Your task to perform on an android device: Open ESPN.com Image 0: 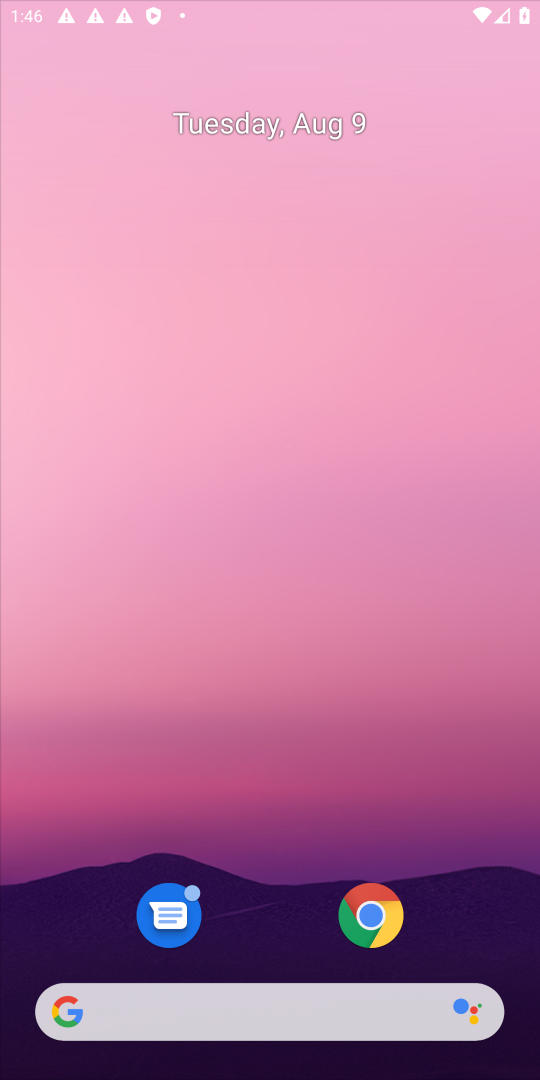
Step 0: click (35, 77)
Your task to perform on an android device: Open ESPN.com Image 1: 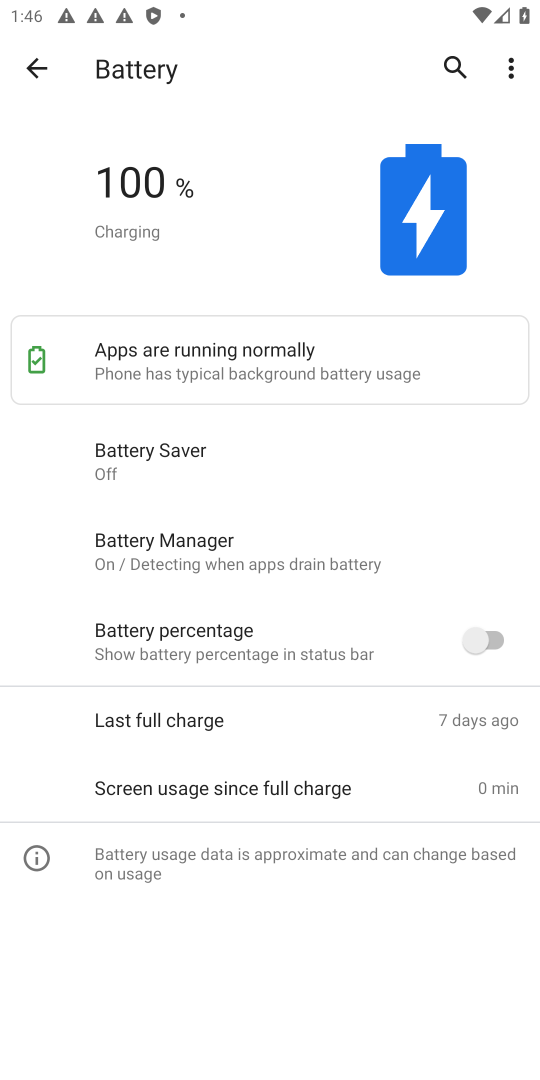
Step 1: press back button
Your task to perform on an android device: Open ESPN.com Image 2: 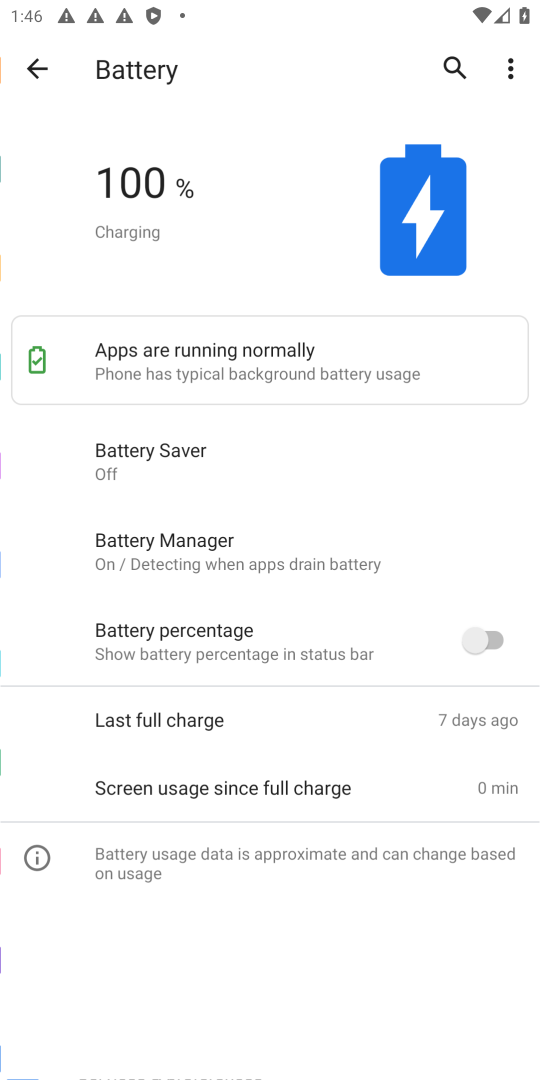
Step 2: click (40, 73)
Your task to perform on an android device: Open ESPN.com Image 3: 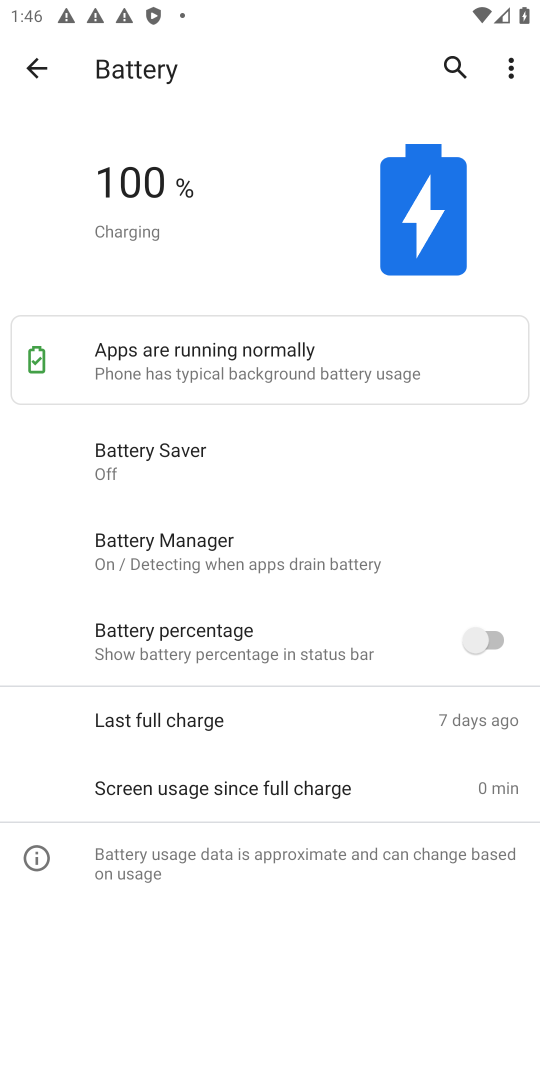
Step 3: click (24, 89)
Your task to perform on an android device: Open ESPN.com Image 4: 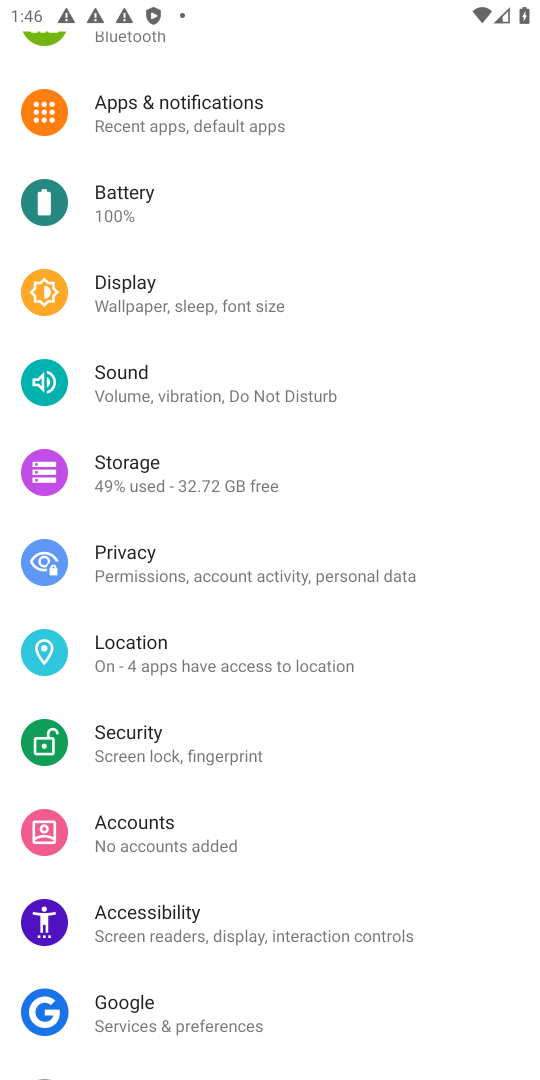
Step 4: press back button
Your task to perform on an android device: Open ESPN.com Image 5: 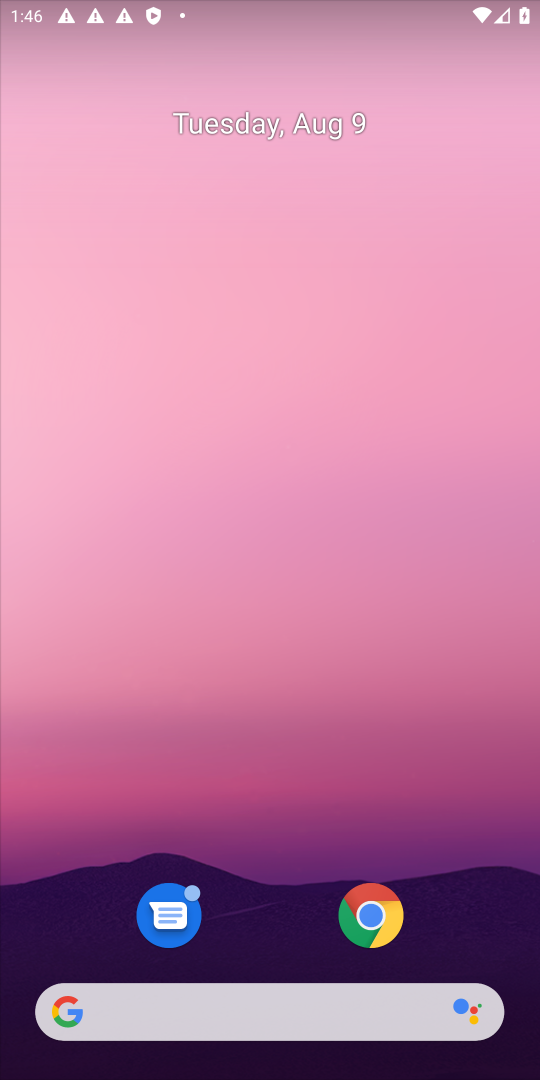
Step 5: drag from (285, 784) to (229, 352)
Your task to perform on an android device: Open ESPN.com Image 6: 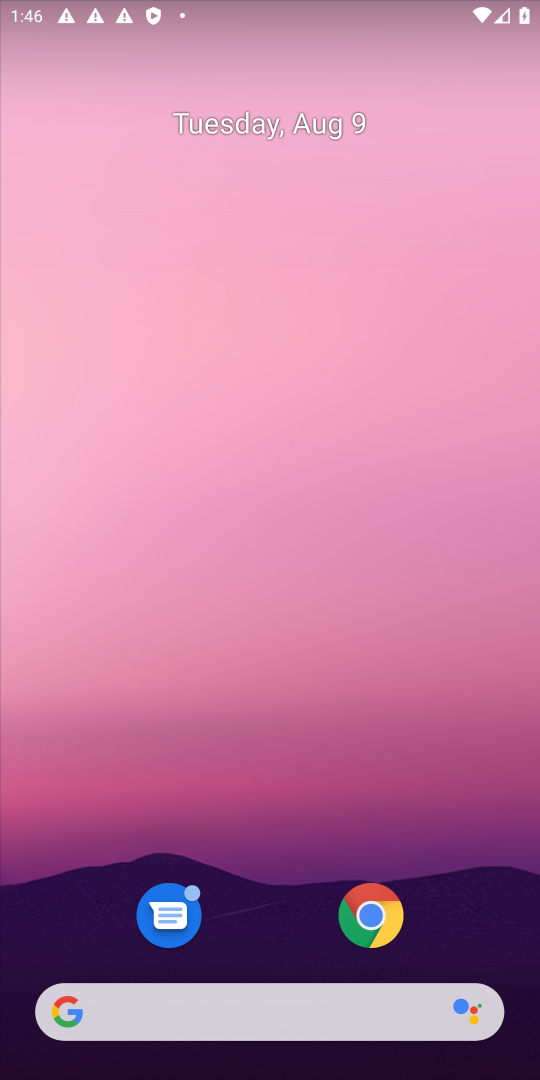
Step 6: click (275, 567)
Your task to perform on an android device: Open ESPN.com Image 7: 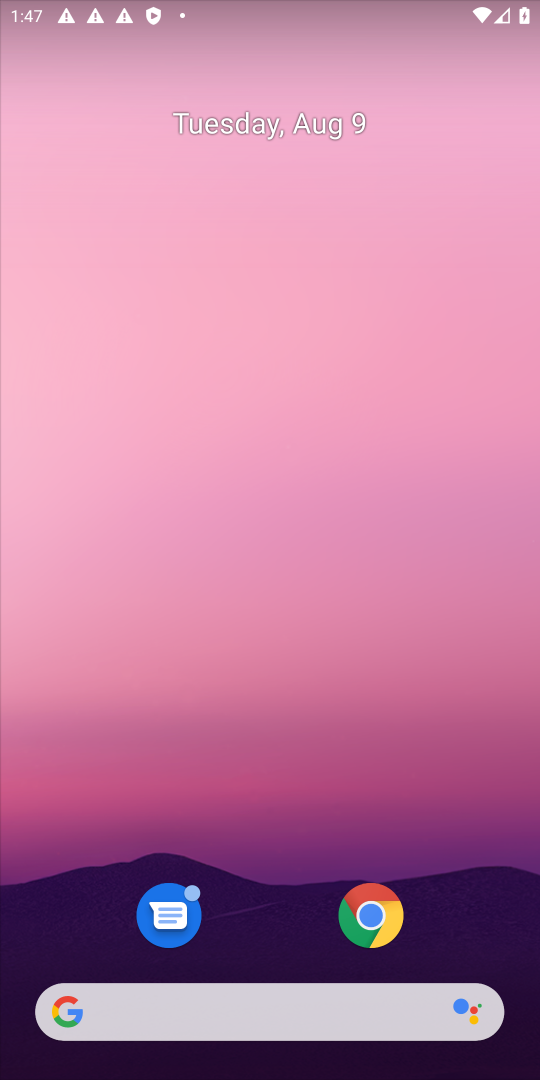
Step 7: drag from (267, 746) to (170, 297)
Your task to perform on an android device: Open ESPN.com Image 8: 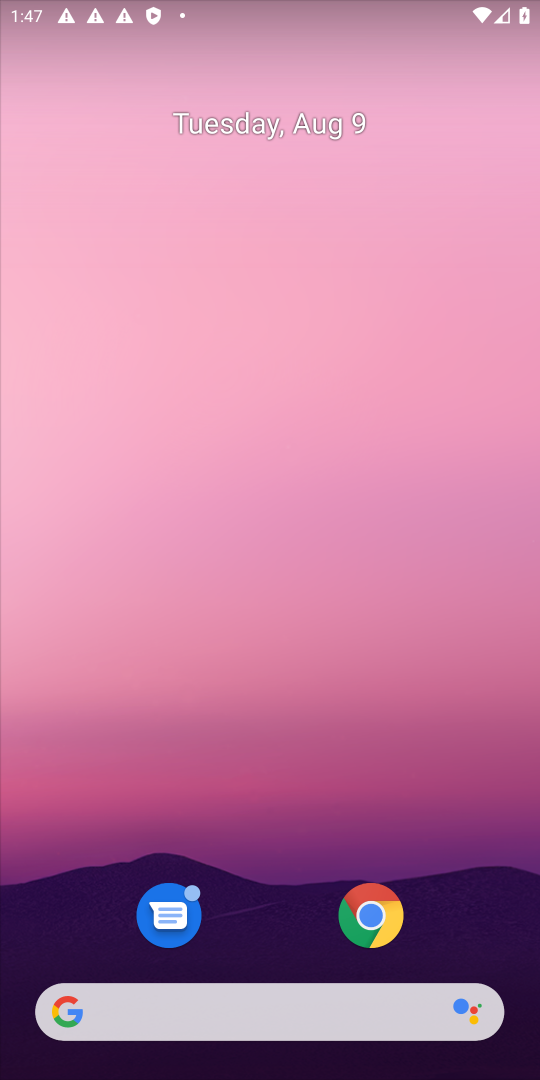
Step 8: drag from (275, 791) to (229, 536)
Your task to perform on an android device: Open ESPN.com Image 9: 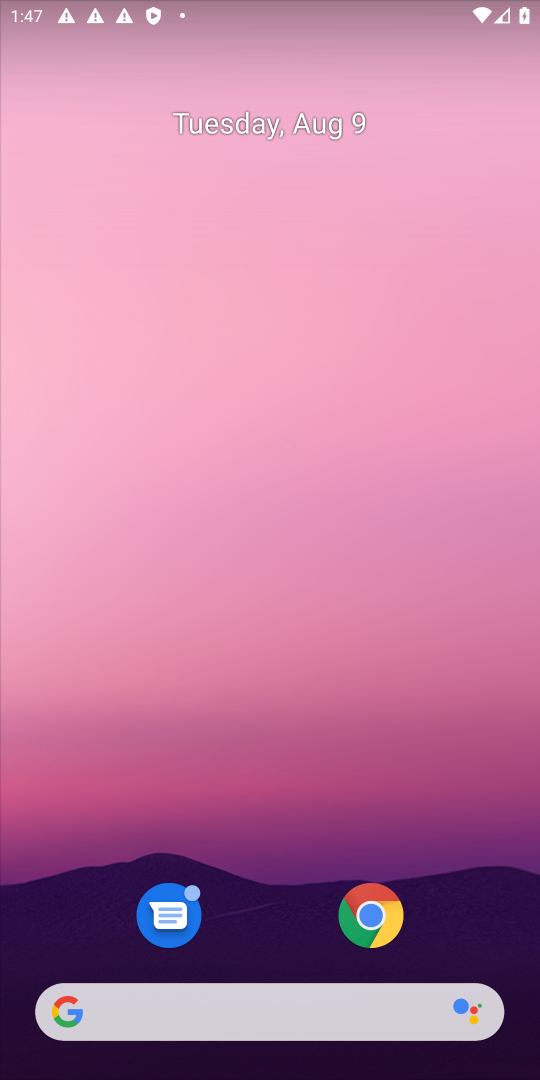
Step 9: drag from (284, 888) to (259, 529)
Your task to perform on an android device: Open ESPN.com Image 10: 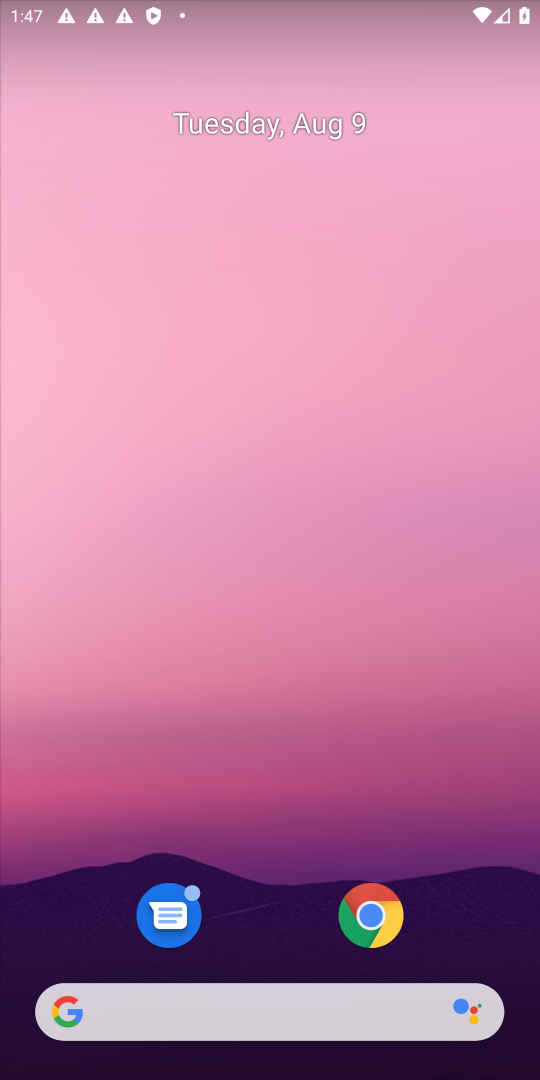
Step 10: drag from (294, 608) to (335, 661)
Your task to perform on an android device: Open ESPN.com Image 11: 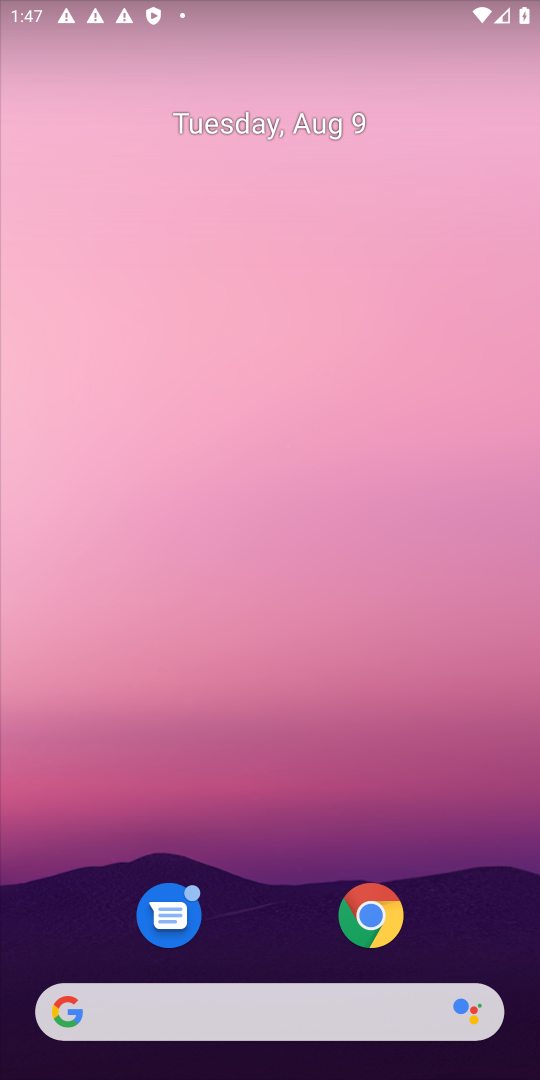
Step 11: drag from (302, 963) to (237, 552)
Your task to perform on an android device: Open ESPN.com Image 12: 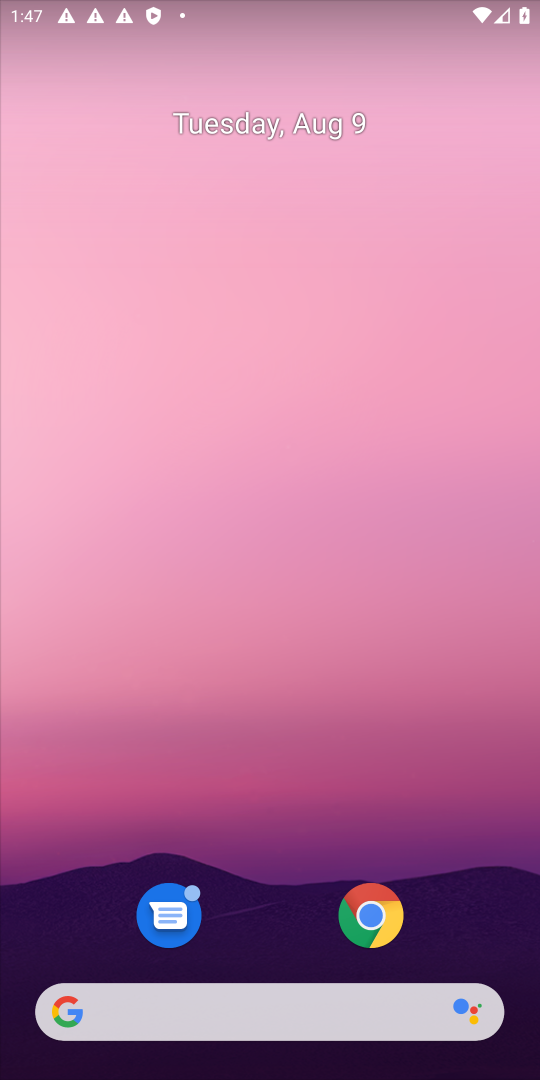
Step 12: drag from (282, 876) to (252, 670)
Your task to perform on an android device: Open ESPN.com Image 13: 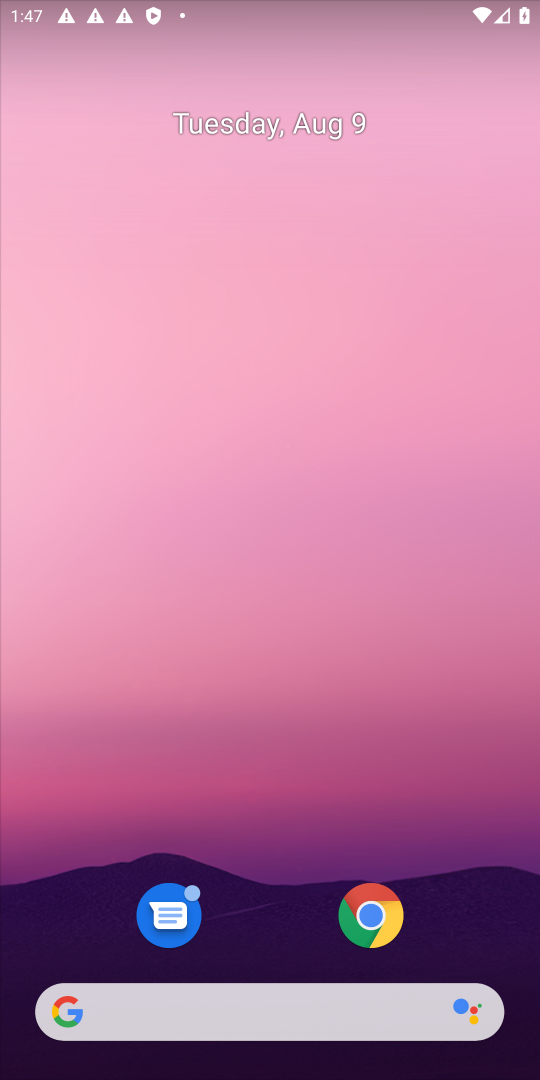
Step 13: drag from (324, 927) to (226, 409)
Your task to perform on an android device: Open ESPN.com Image 14: 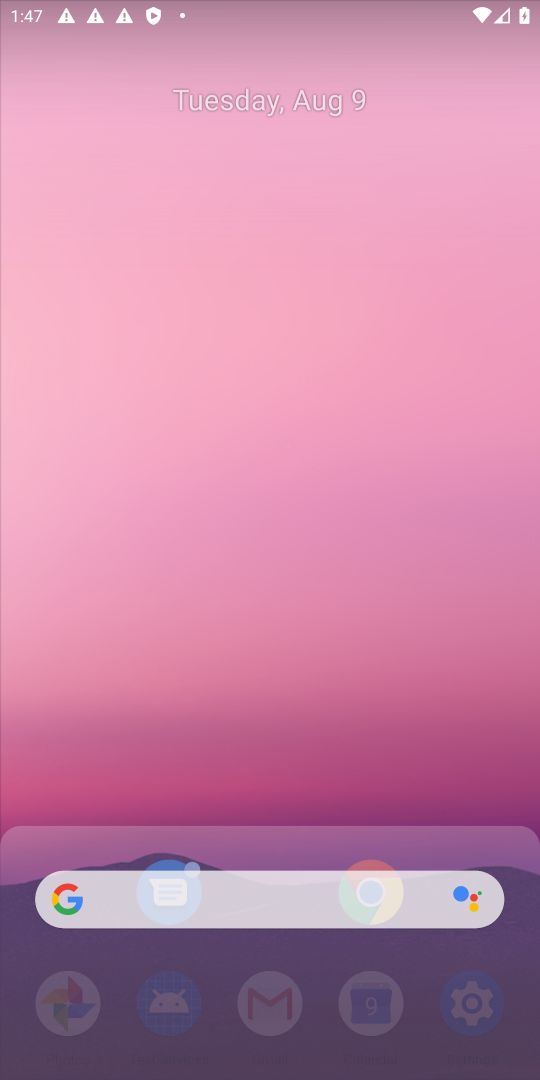
Step 14: drag from (277, 792) to (208, 354)
Your task to perform on an android device: Open ESPN.com Image 15: 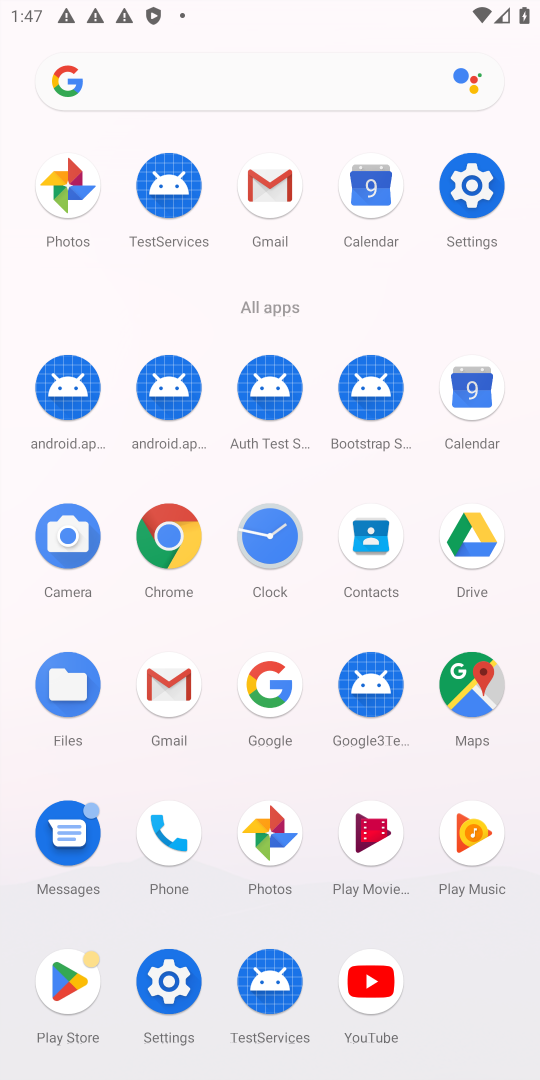
Step 15: click (164, 530)
Your task to perform on an android device: Open ESPN.com Image 16: 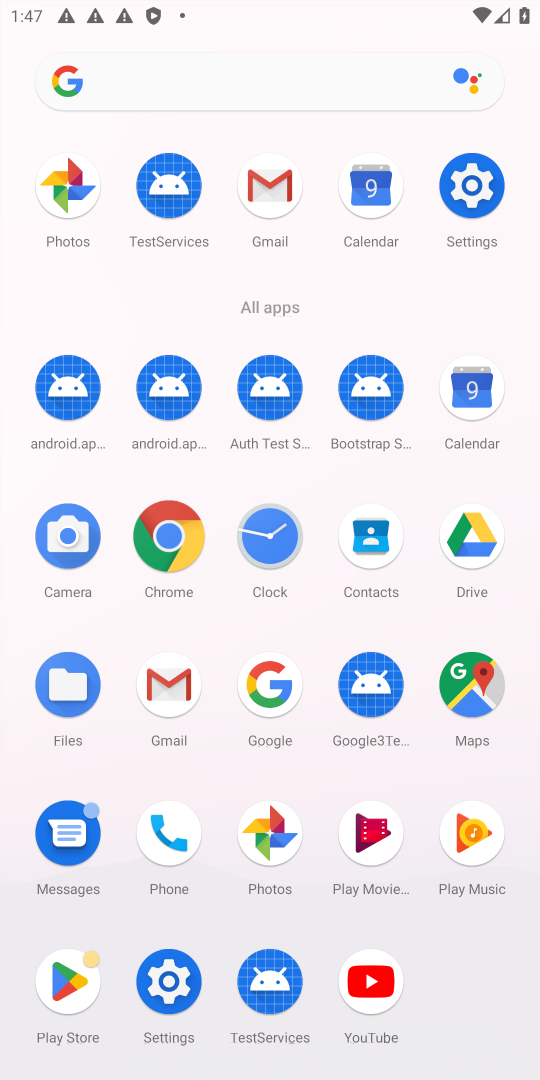
Step 16: click (167, 529)
Your task to perform on an android device: Open ESPN.com Image 17: 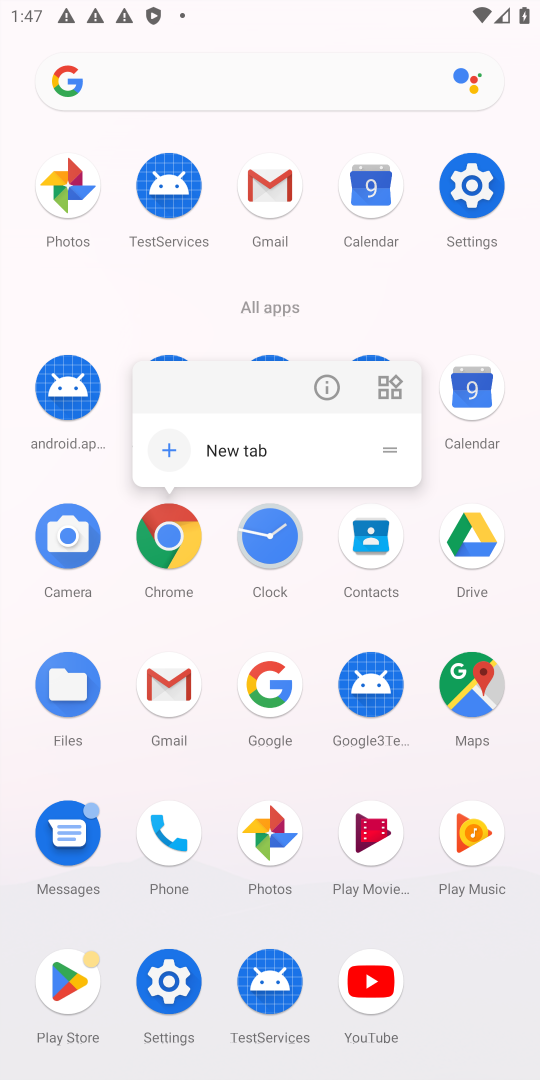
Step 17: click (146, 548)
Your task to perform on an android device: Open ESPN.com Image 18: 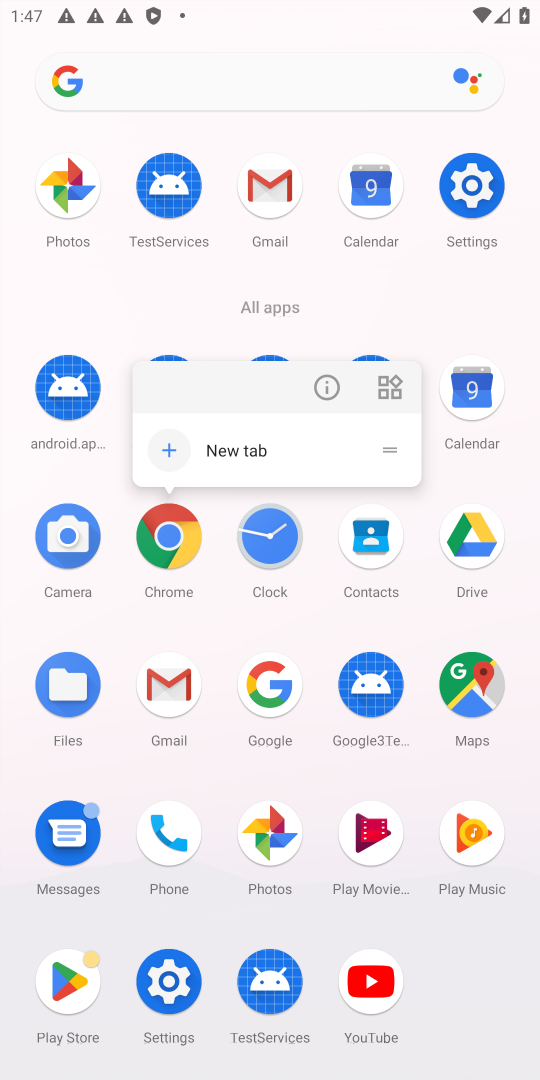
Step 18: click (146, 548)
Your task to perform on an android device: Open ESPN.com Image 19: 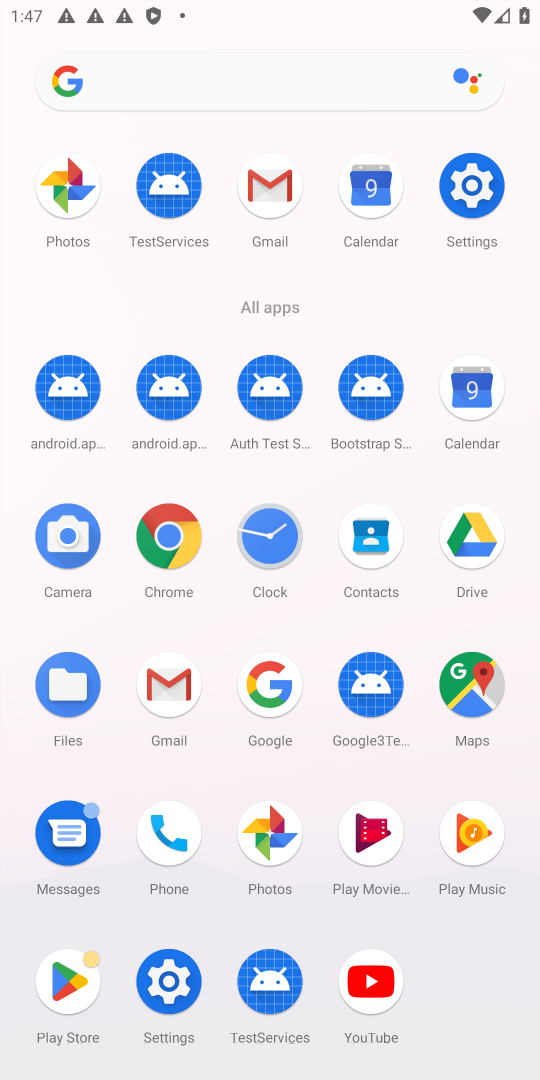
Step 19: click (152, 554)
Your task to perform on an android device: Open ESPN.com Image 20: 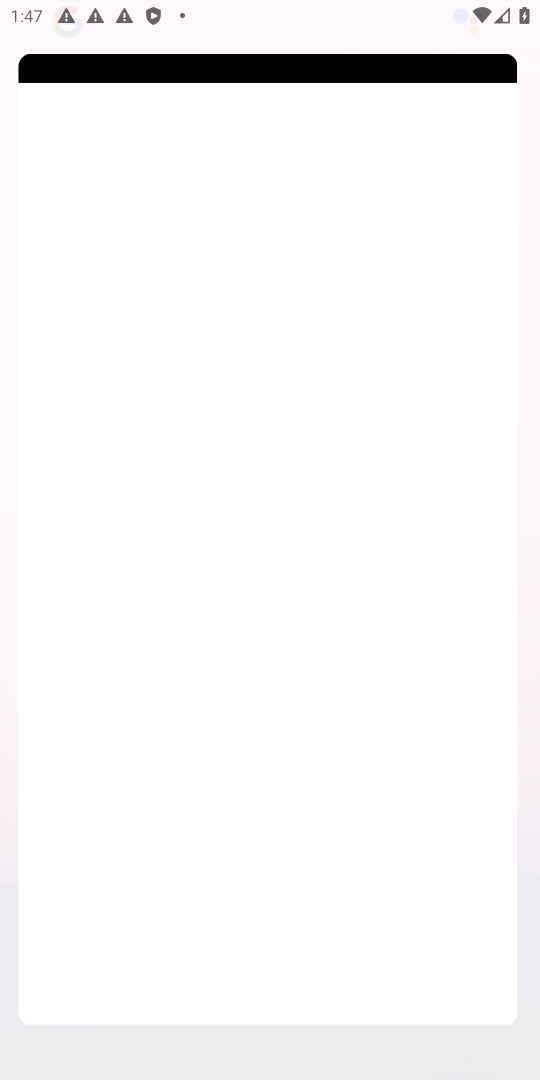
Step 20: click (153, 552)
Your task to perform on an android device: Open ESPN.com Image 21: 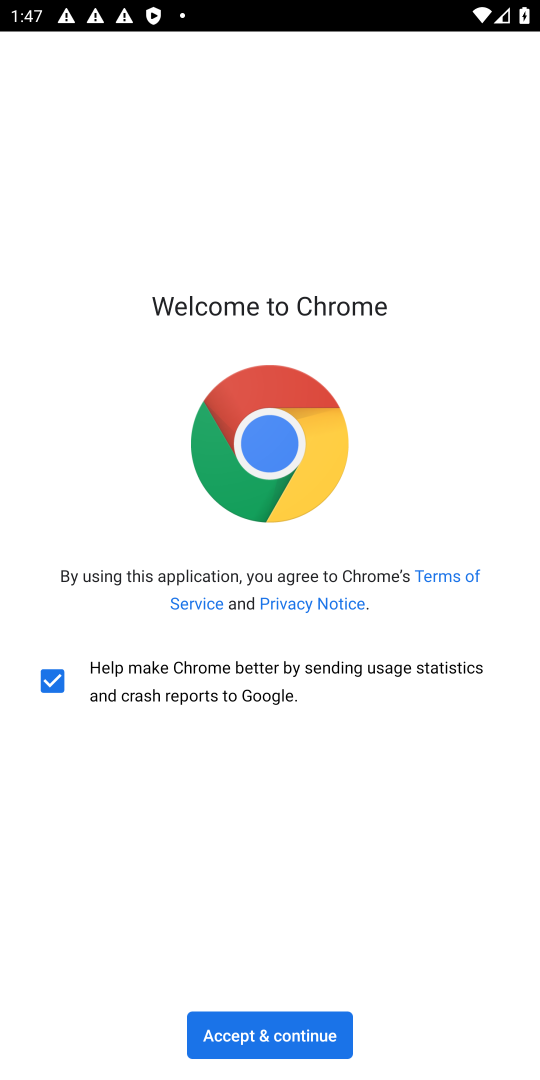
Step 21: click (285, 1040)
Your task to perform on an android device: Open ESPN.com Image 22: 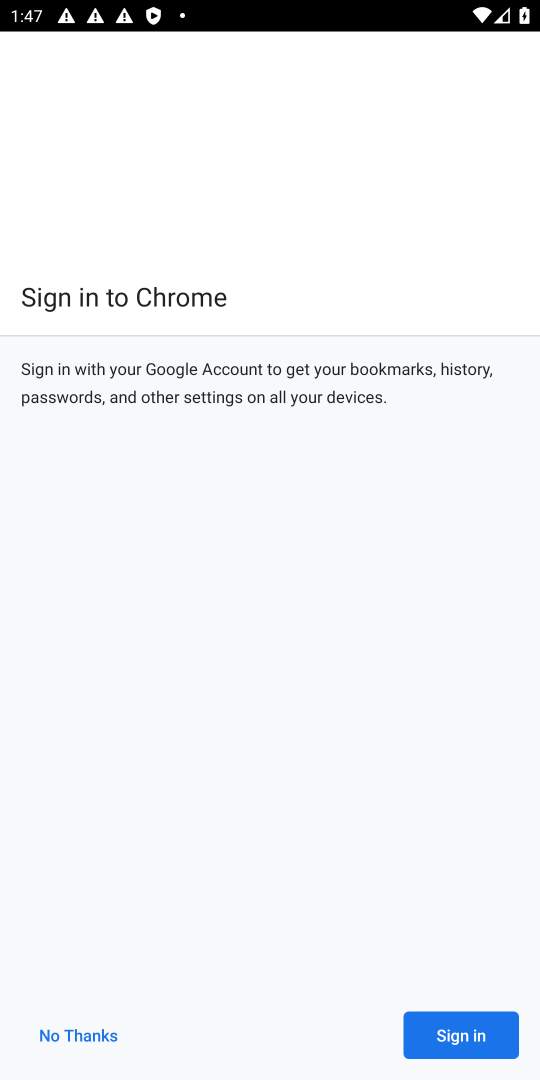
Step 22: click (59, 1027)
Your task to perform on an android device: Open ESPN.com Image 23: 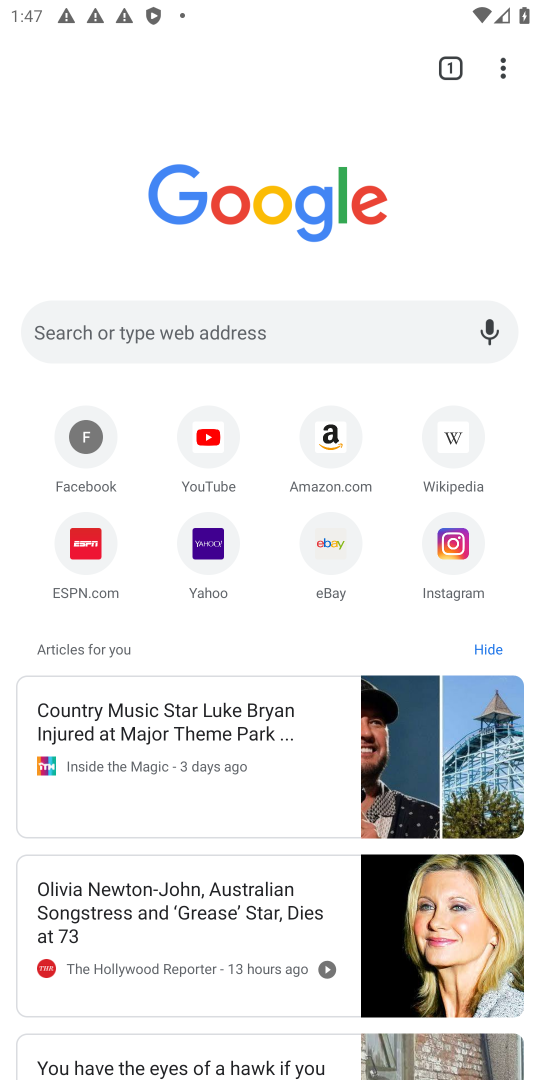
Step 23: click (52, 537)
Your task to perform on an android device: Open ESPN.com Image 24: 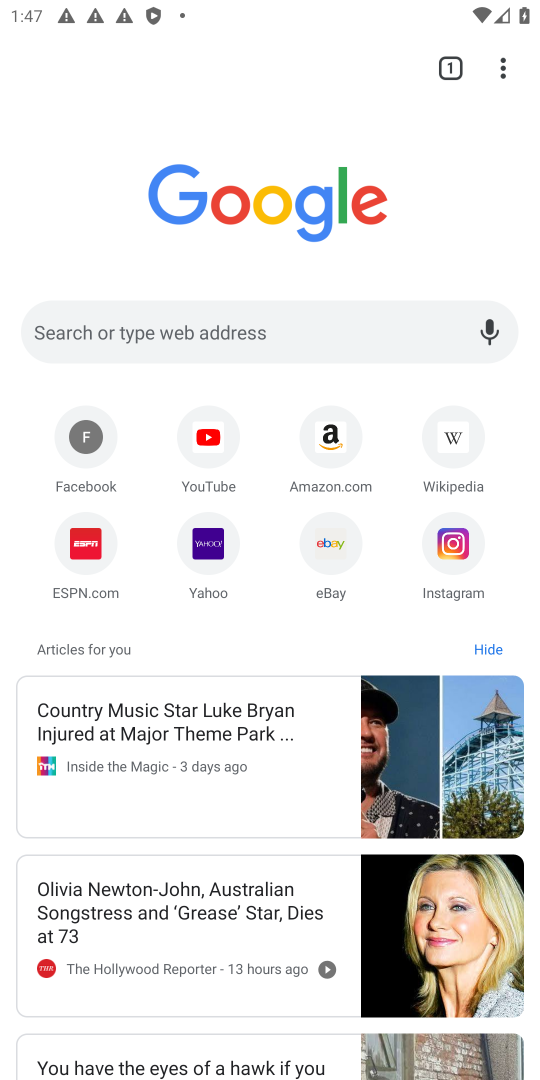
Step 24: click (68, 548)
Your task to perform on an android device: Open ESPN.com Image 25: 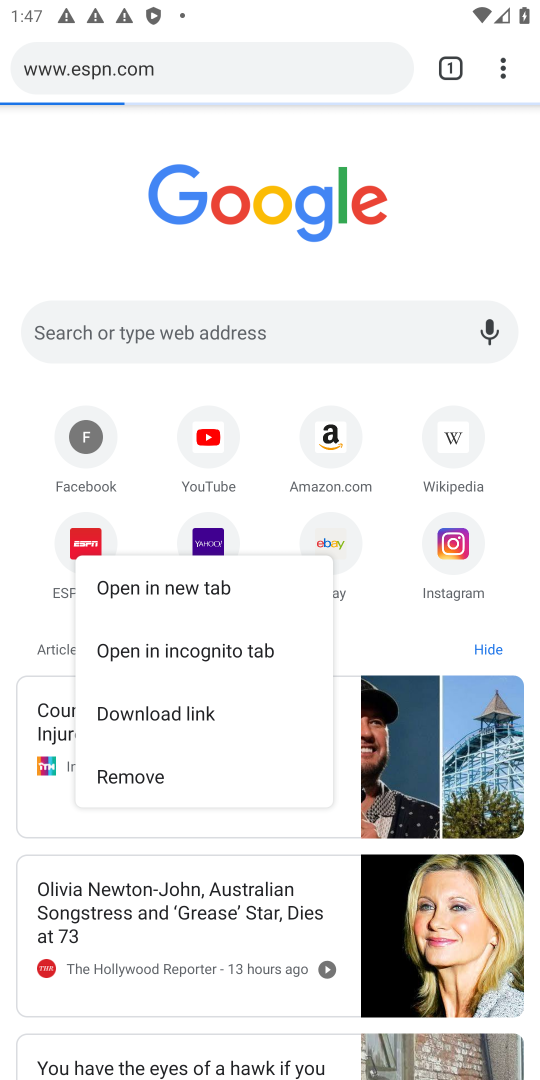
Step 25: click (75, 552)
Your task to perform on an android device: Open ESPN.com Image 26: 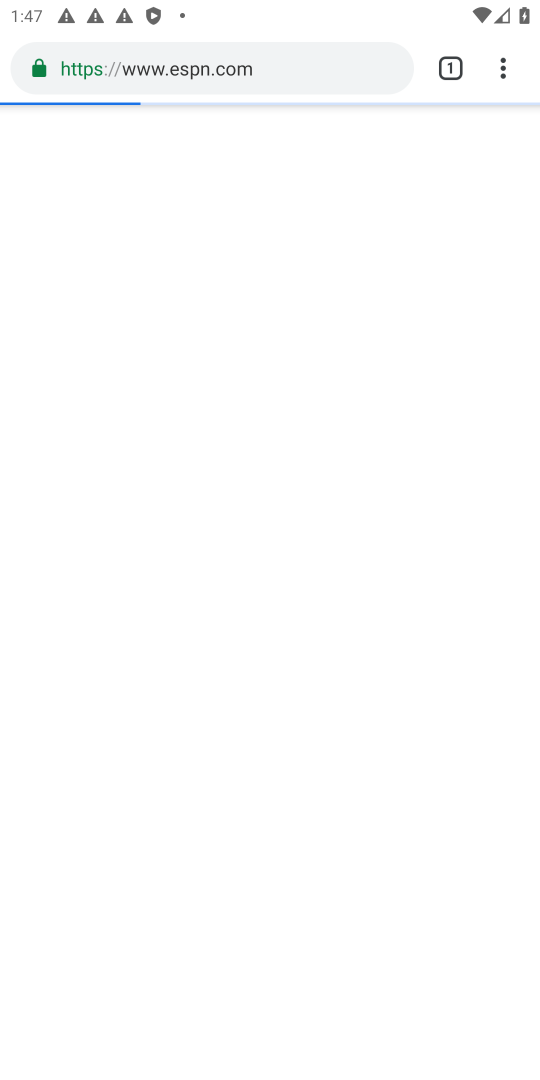
Step 26: click (87, 534)
Your task to perform on an android device: Open ESPN.com Image 27: 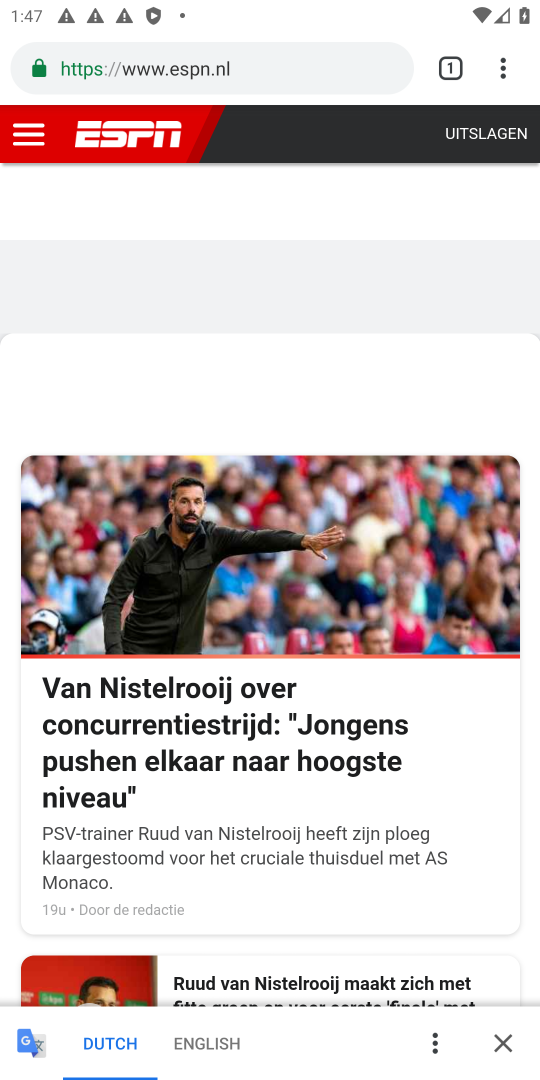
Step 27: task complete